Your task to perform on an android device: show emergency info Image 0: 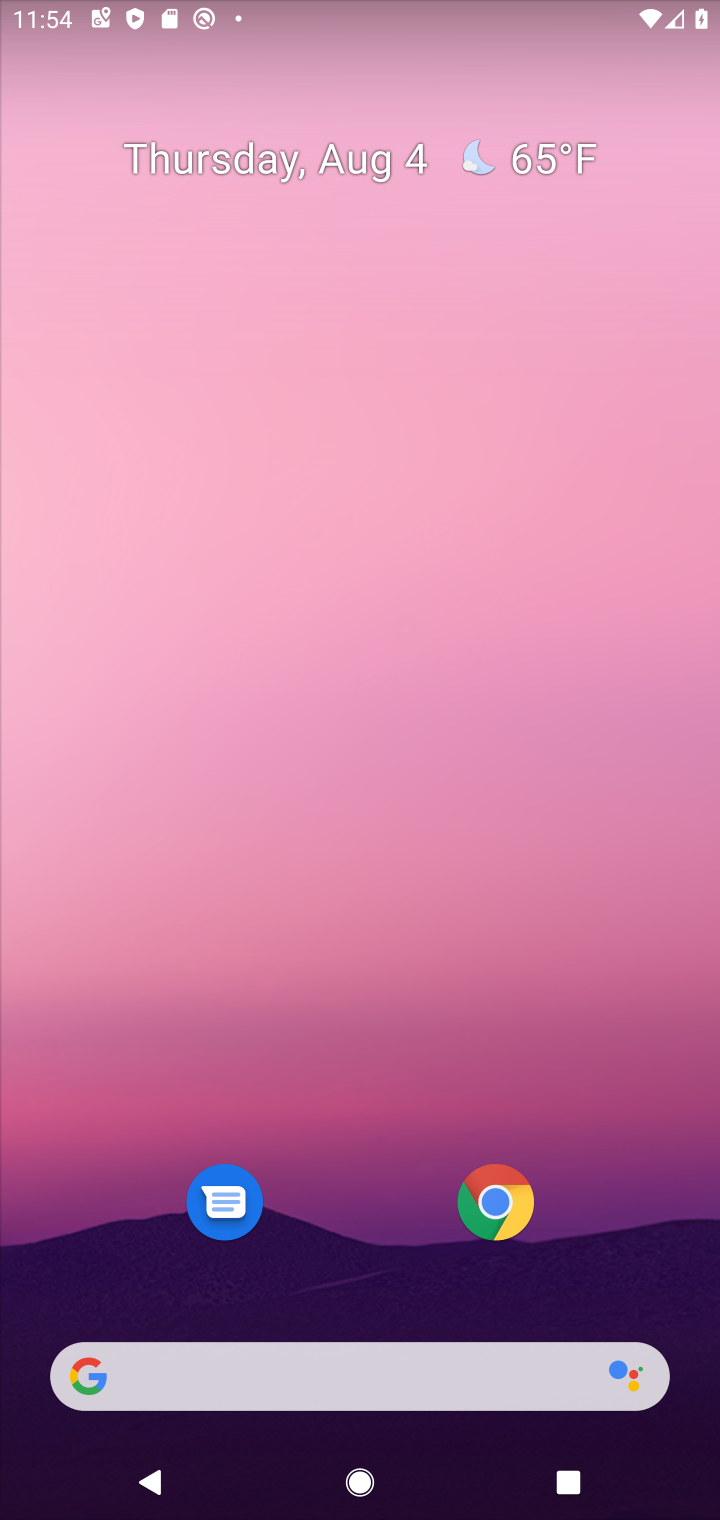
Step 0: drag from (280, 1135) to (419, 255)
Your task to perform on an android device: show emergency info Image 1: 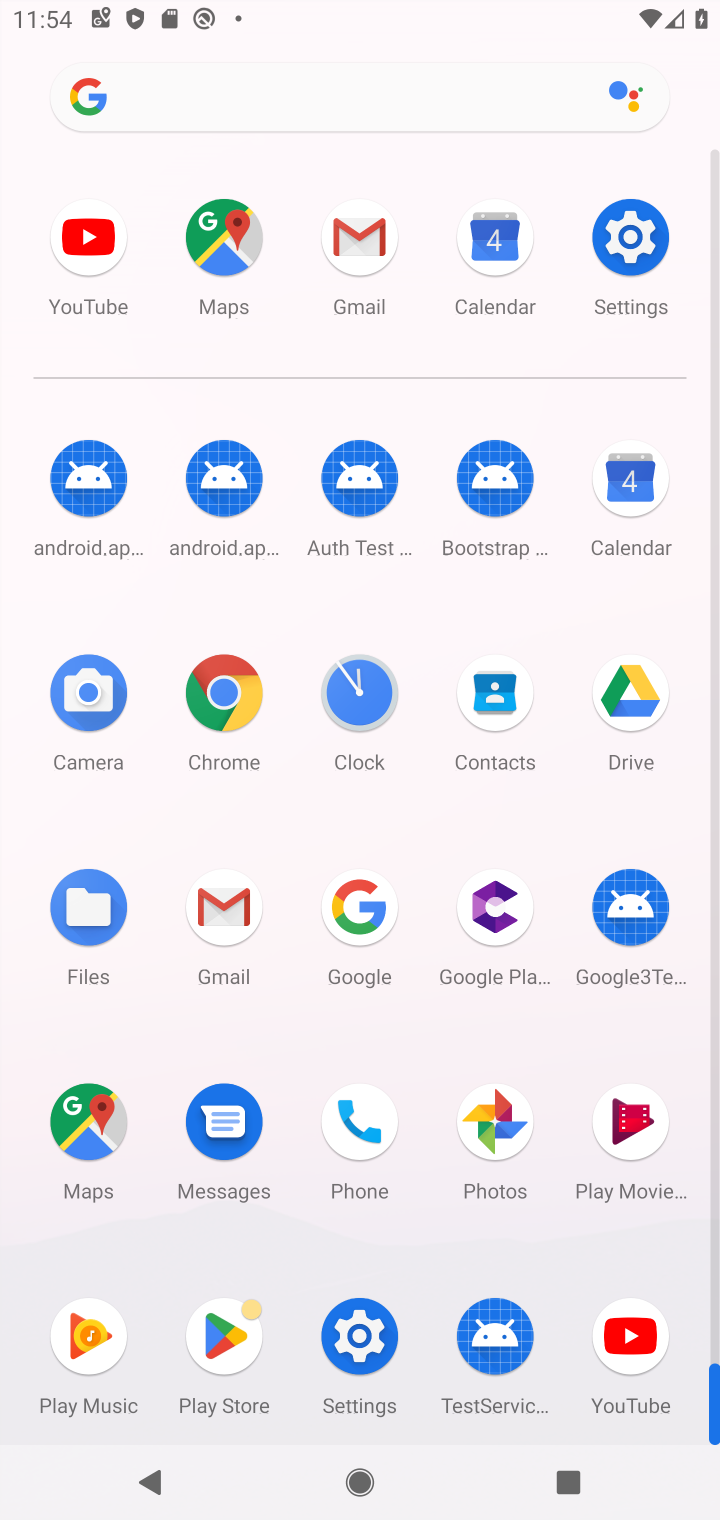
Step 1: click (636, 234)
Your task to perform on an android device: show emergency info Image 2: 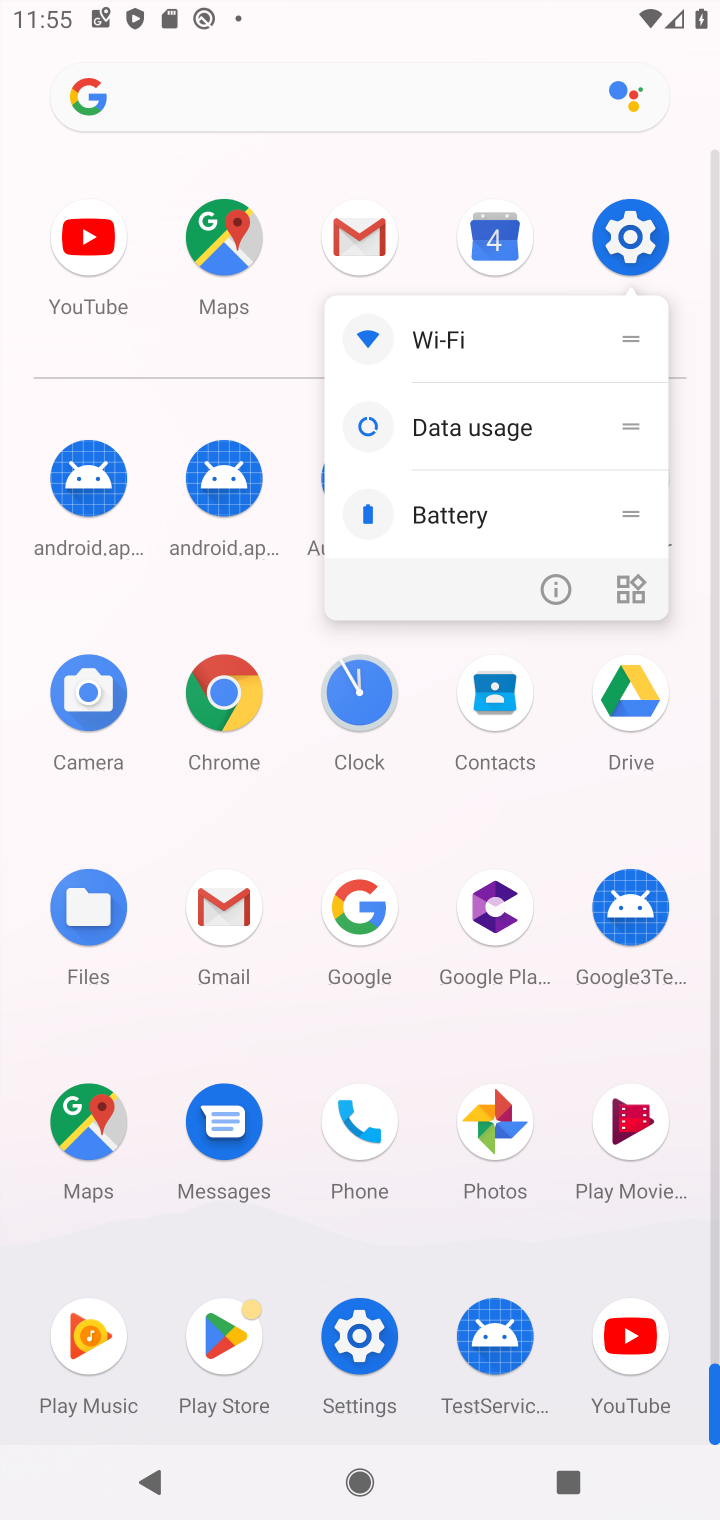
Step 2: click (636, 234)
Your task to perform on an android device: show emergency info Image 3: 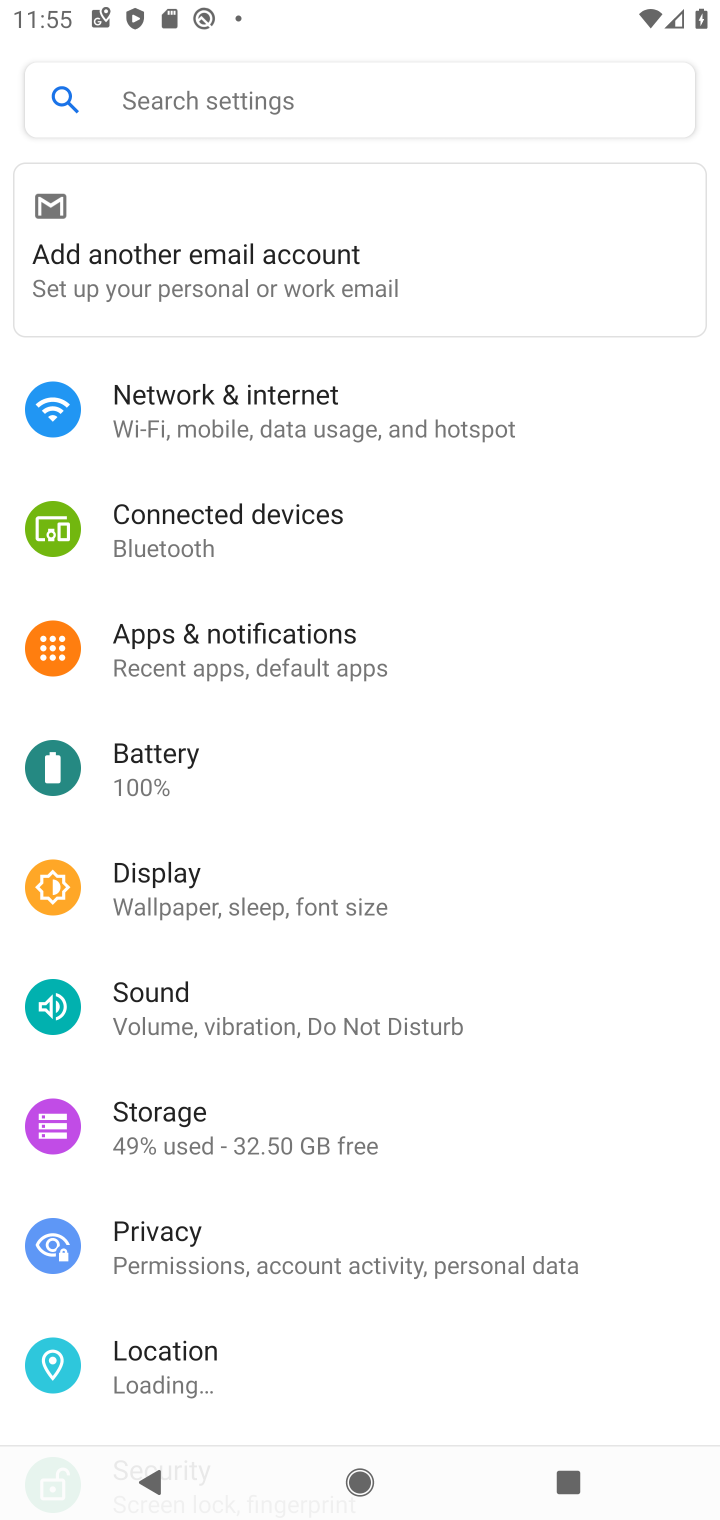
Step 3: drag from (245, 1287) to (495, 42)
Your task to perform on an android device: show emergency info Image 4: 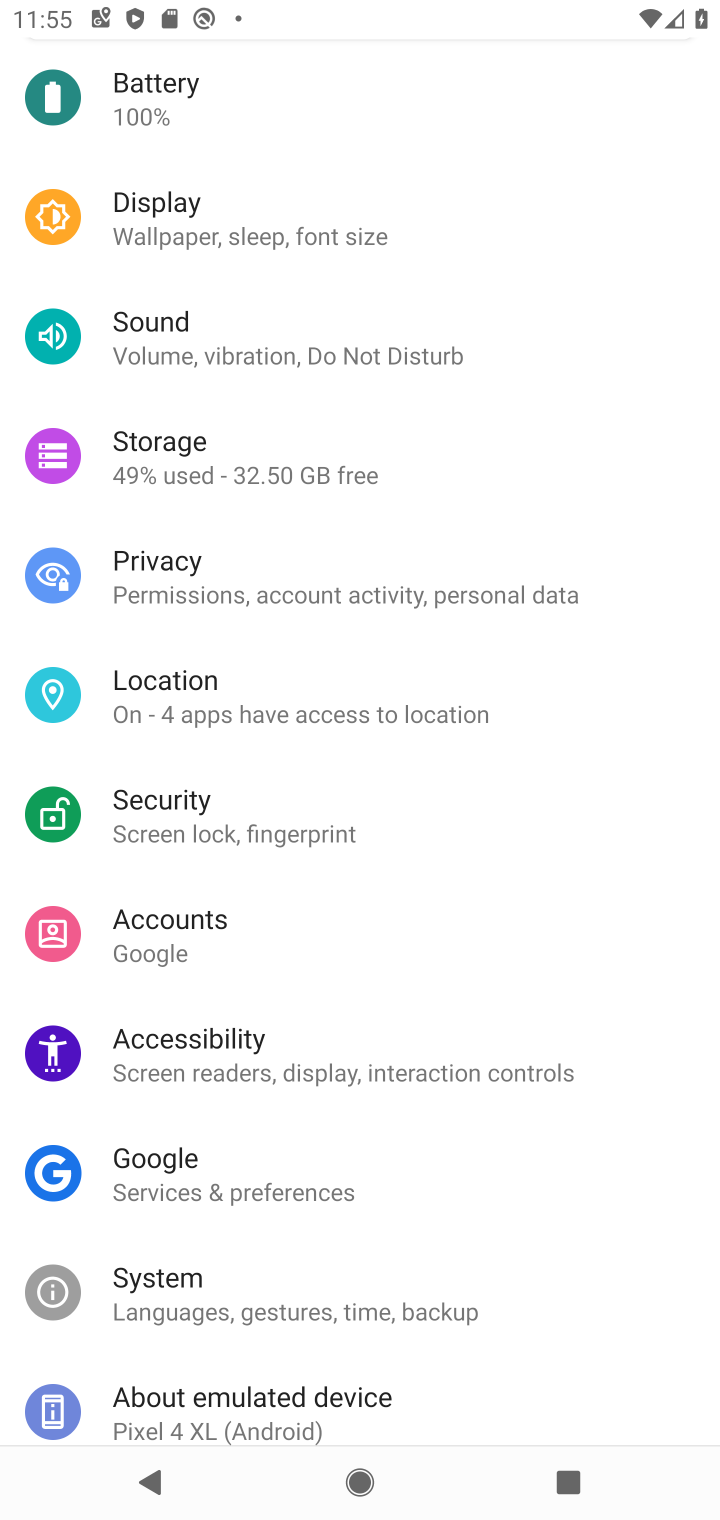
Step 4: click (215, 1398)
Your task to perform on an android device: show emergency info Image 5: 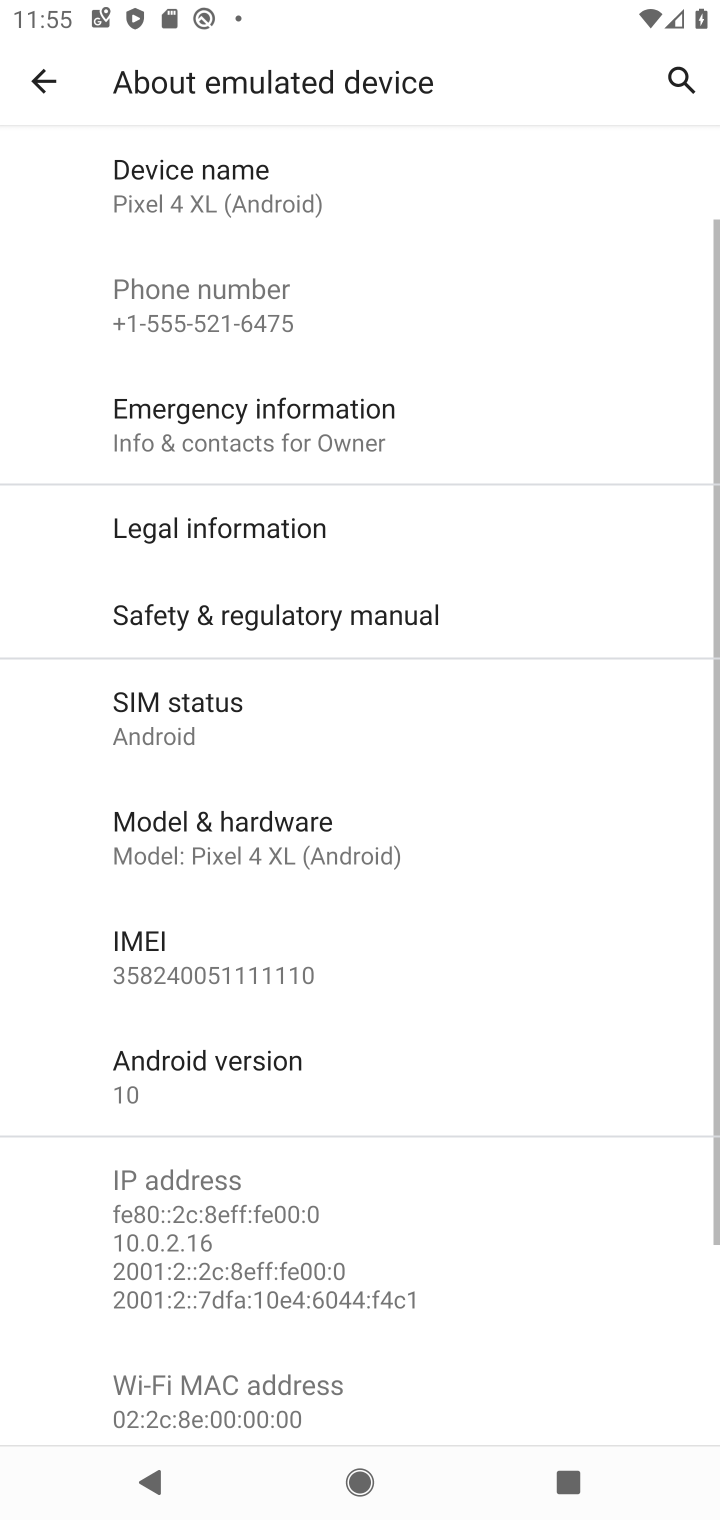
Step 5: click (296, 420)
Your task to perform on an android device: show emergency info Image 6: 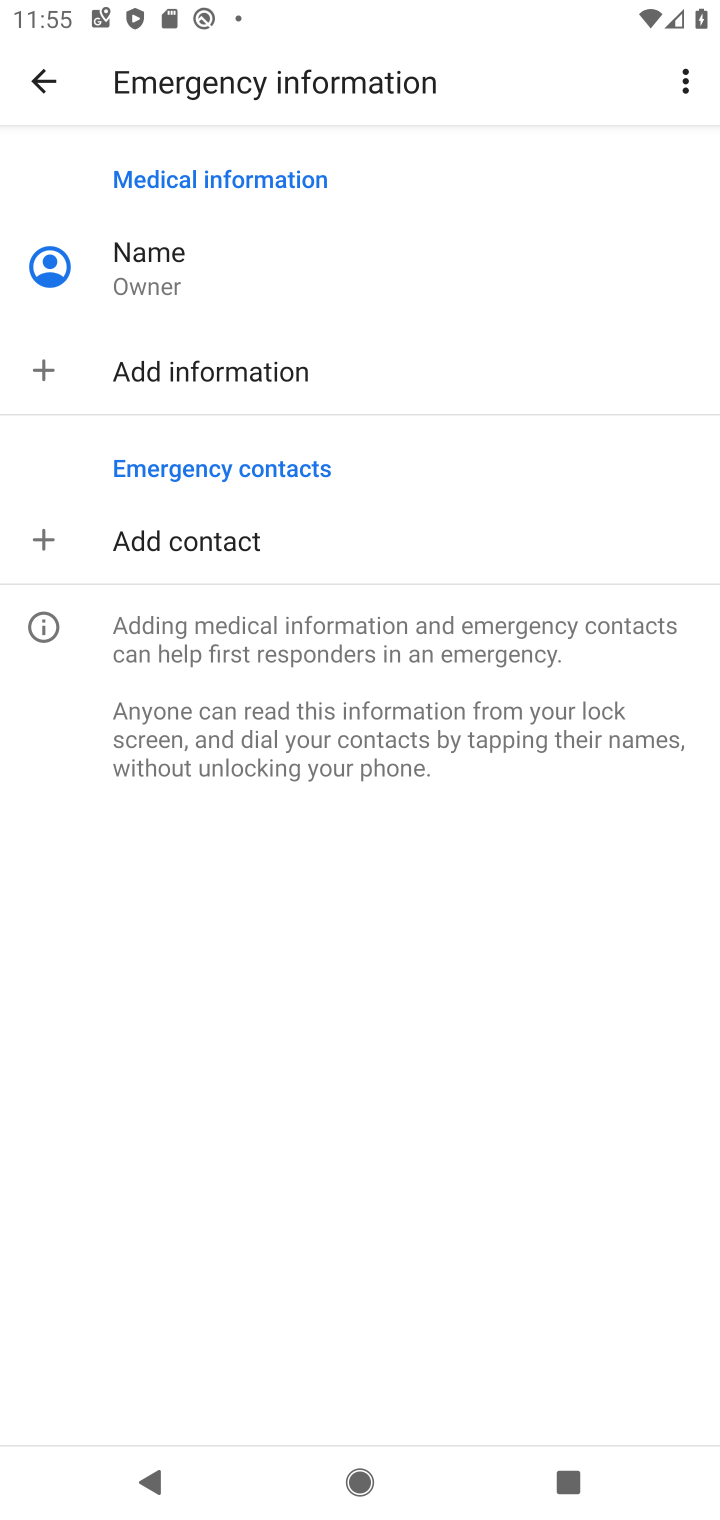
Step 6: task complete